Your task to perform on an android device: change notification settings in the gmail app Image 0: 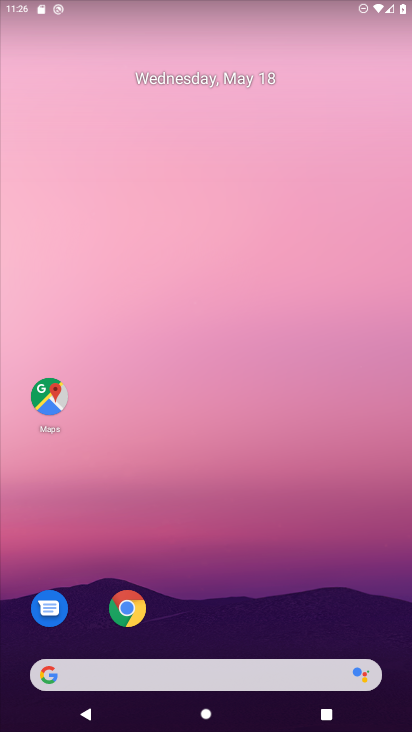
Step 0: drag from (247, 586) to (157, 171)
Your task to perform on an android device: change notification settings in the gmail app Image 1: 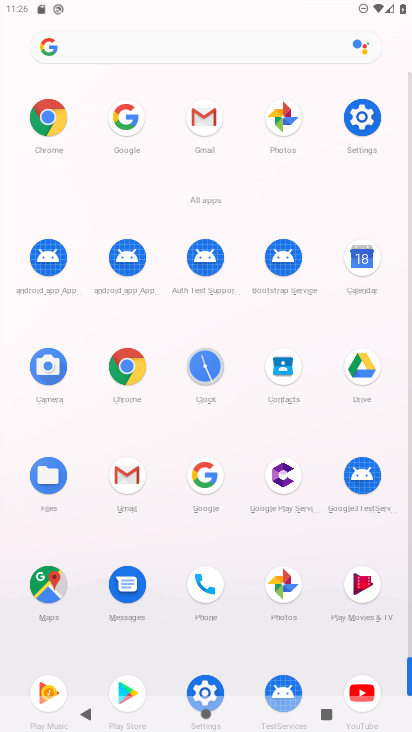
Step 1: click (201, 117)
Your task to perform on an android device: change notification settings in the gmail app Image 2: 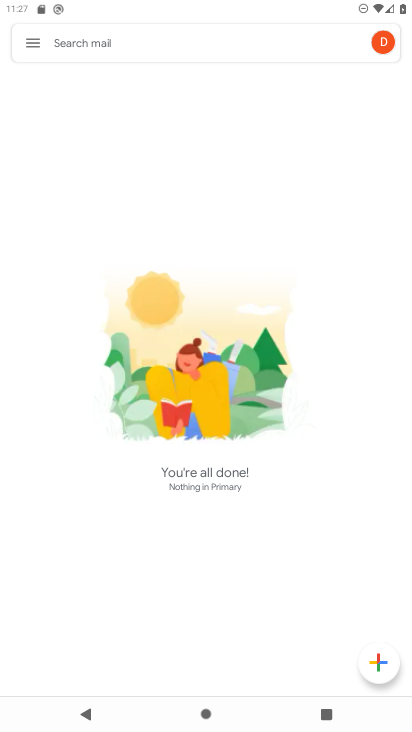
Step 2: click (29, 44)
Your task to perform on an android device: change notification settings in the gmail app Image 3: 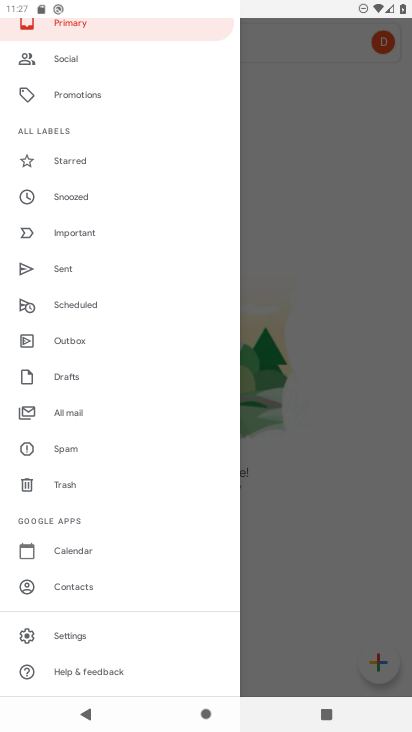
Step 3: click (81, 636)
Your task to perform on an android device: change notification settings in the gmail app Image 4: 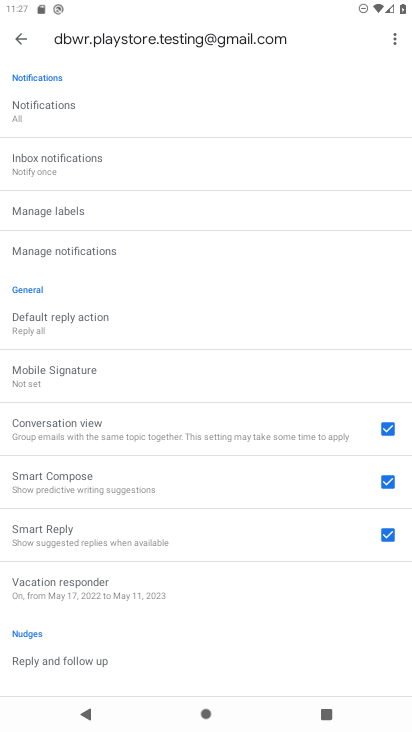
Step 4: click (44, 250)
Your task to perform on an android device: change notification settings in the gmail app Image 5: 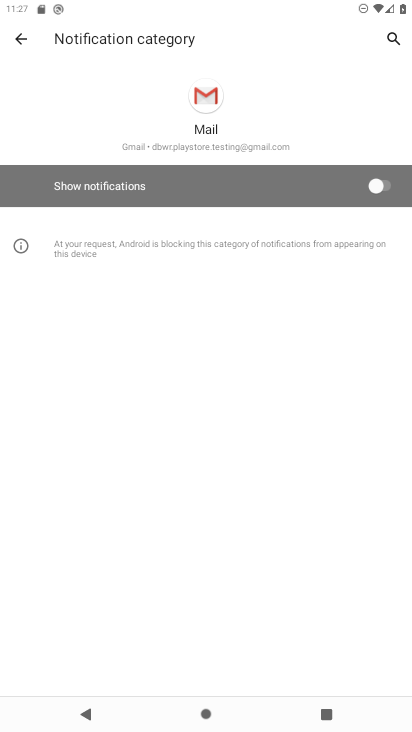
Step 5: click (377, 186)
Your task to perform on an android device: change notification settings in the gmail app Image 6: 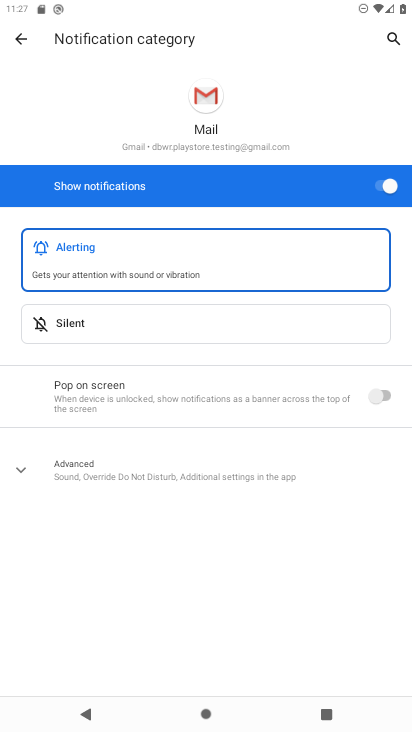
Step 6: task complete